Your task to perform on an android device: Open Wikipedia Image 0: 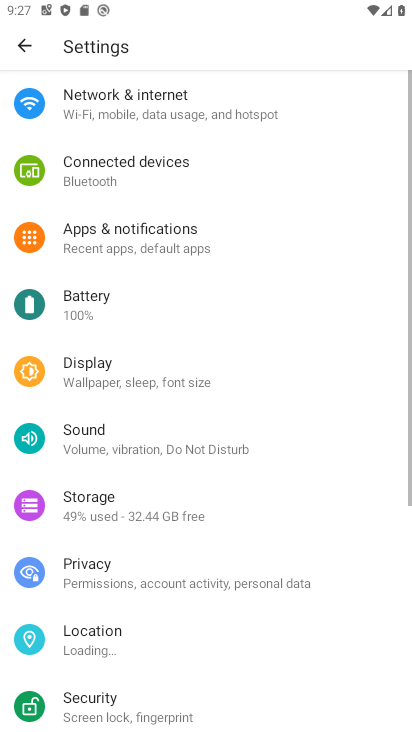
Step 0: press home button
Your task to perform on an android device: Open Wikipedia Image 1: 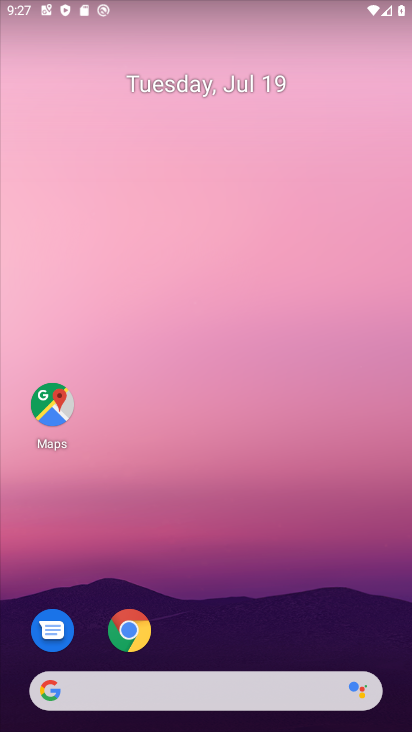
Step 1: click (130, 631)
Your task to perform on an android device: Open Wikipedia Image 2: 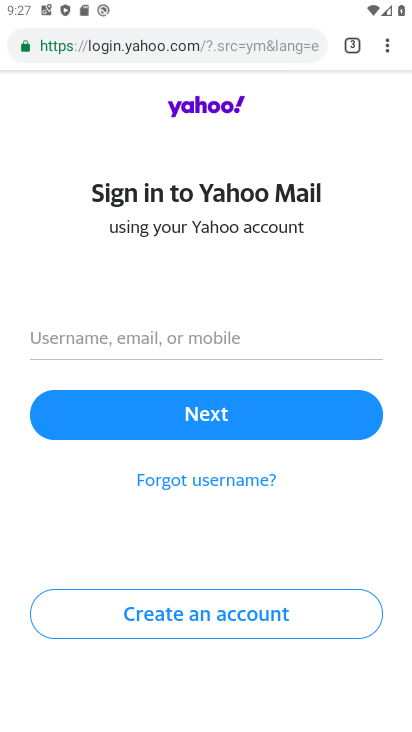
Step 2: click (353, 44)
Your task to perform on an android device: Open Wikipedia Image 3: 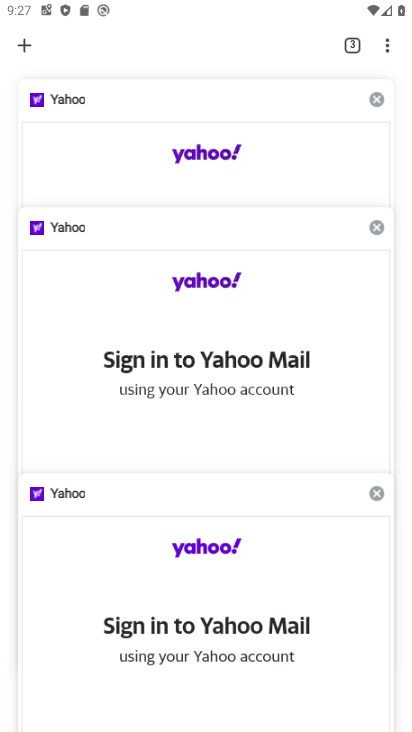
Step 3: click (28, 47)
Your task to perform on an android device: Open Wikipedia Image 4: 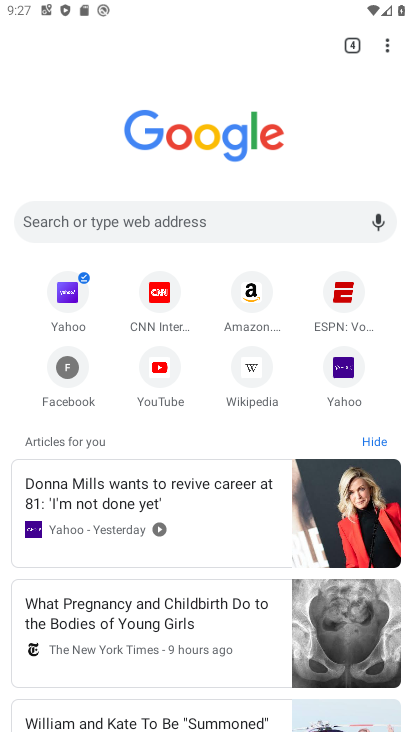
Step 4: click (246, 367)
Your task to perform on an android device: Open Wikipedia Image 5: 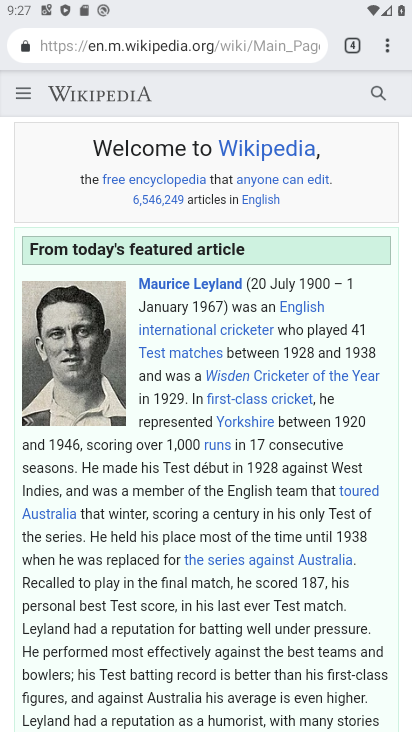
Step 5: task complete